Your task to perform on an android device: turn off notifications settings in the gmail app Image 0: 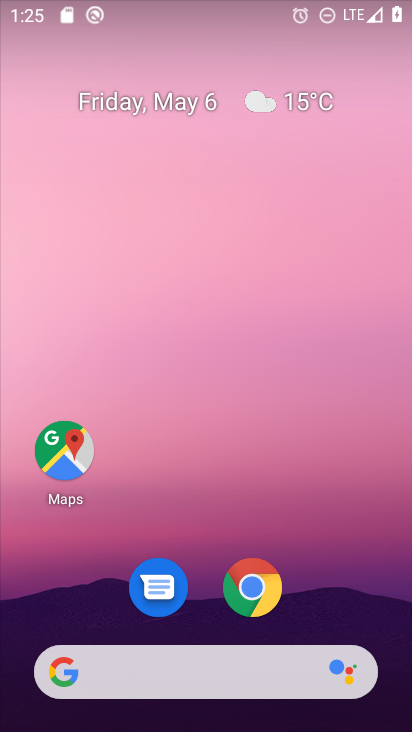
Step 0: drag from (357, 601) to (225, 17)
Your task to perform on an android device: turn off notifications settings in the gmail app Image 1: 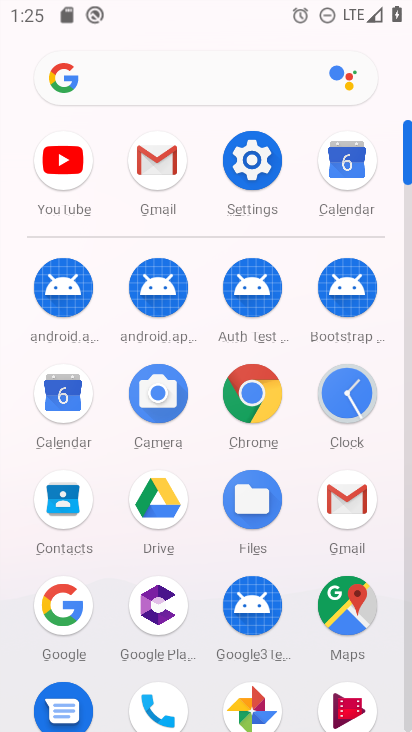
Step 1: click (342, 503)
Your task to perform on an android device: turn off notifications settings in the gmail app Image 2: 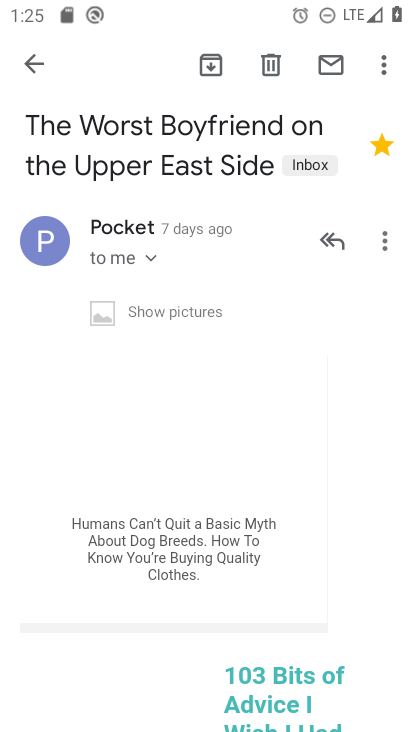
Step 2: click (32, 69)
Your task to perform on an android device: turn off notifications settings in the gmail app Image 3: 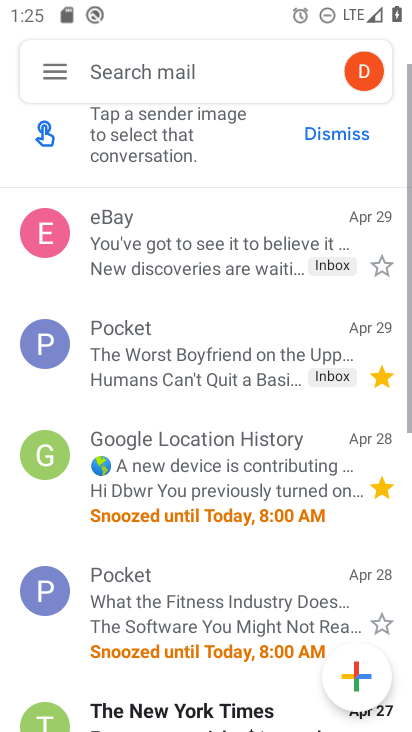
Step 3: click (53, 77)
Your task to perform on an android device: turn off notifications settings in the gmail app Image 4: 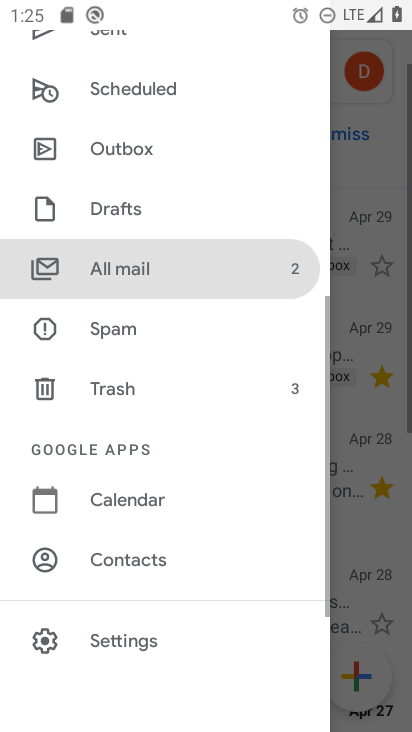
Step 4: click (140, 648)
Your task to perform on an android device: turn off notifications settings in the gmail app Image 5: 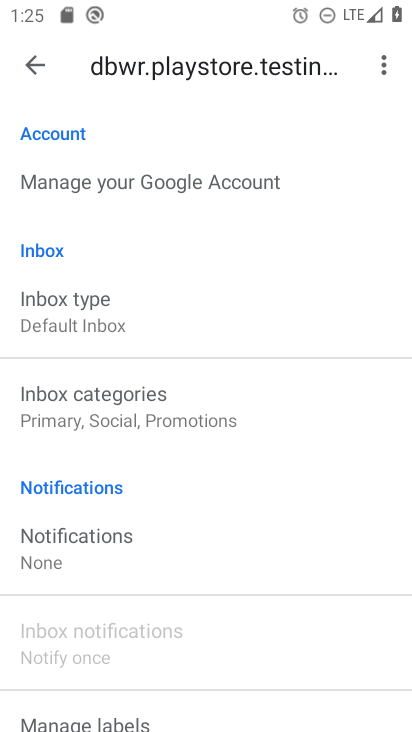
Step 5: click (117, 551)
Your task to perform on an android device: turn off notifications settings in the gmail app Image 6: 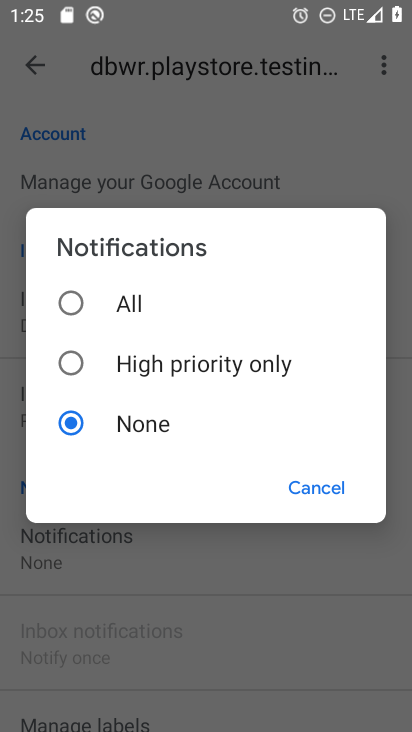
Step 6: click (315, 484)
Your task to perform on an android device: turn off notifications settings in the gmail app Image 7: 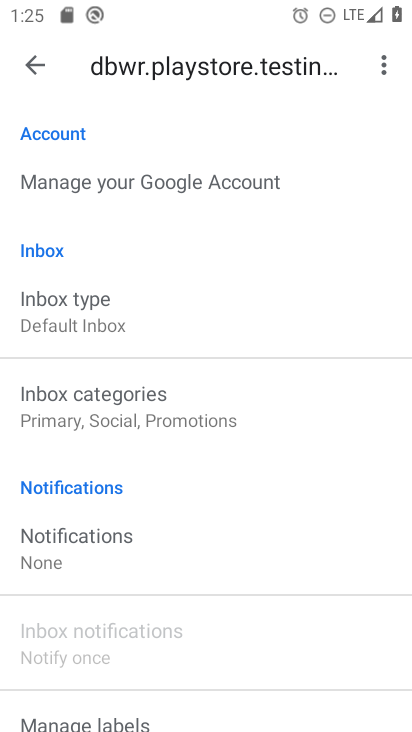
Step 7: drag from (153, 643) to (175, 300)
Your task to perform on an android device: turn off notifications settings in the gmail app Image 8: 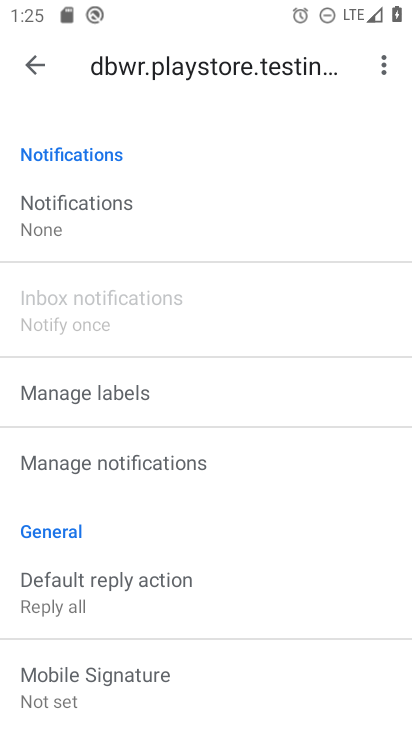
Step 8: click (110, 456)
Your task to perform on an android device: turn off notifications settings in the gmail app Image 9: 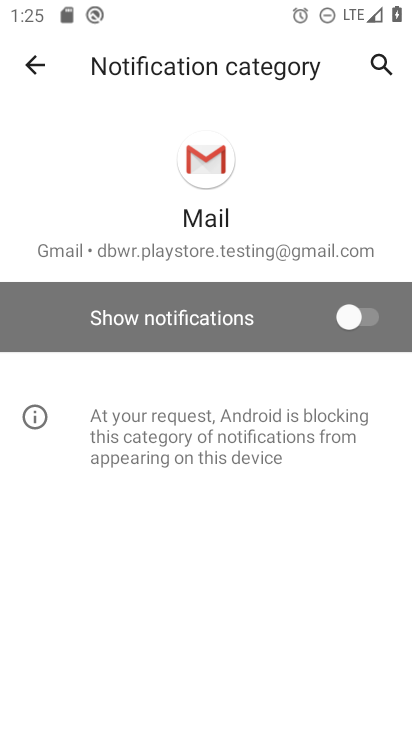
Step 9: task complete